Your task to perform on an android device: toggle airplane mode Image 0: 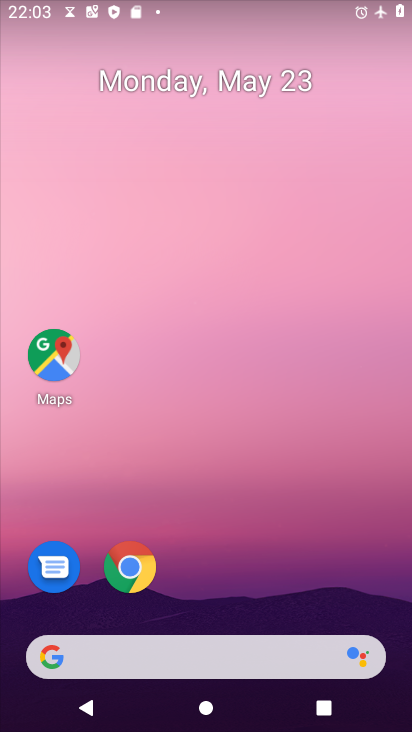
Step 0: drag from (233, 564) to (271, 214)
Your task to perform on an android device: toggle airplane mode Image 1: 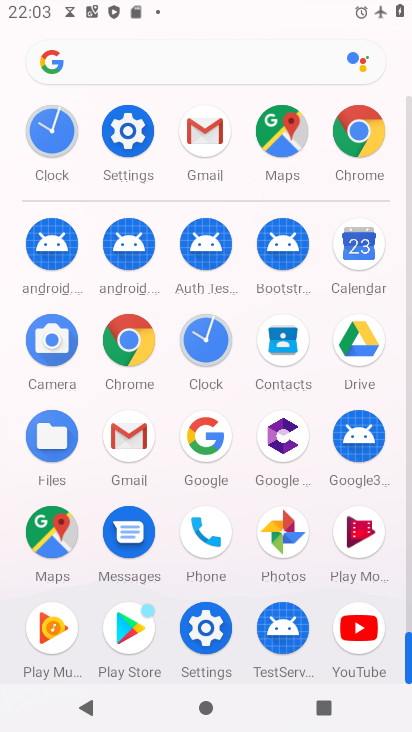
Step 1: click (136, 127)
Your task to perform on an android device: toggle airplane mode Image 2: 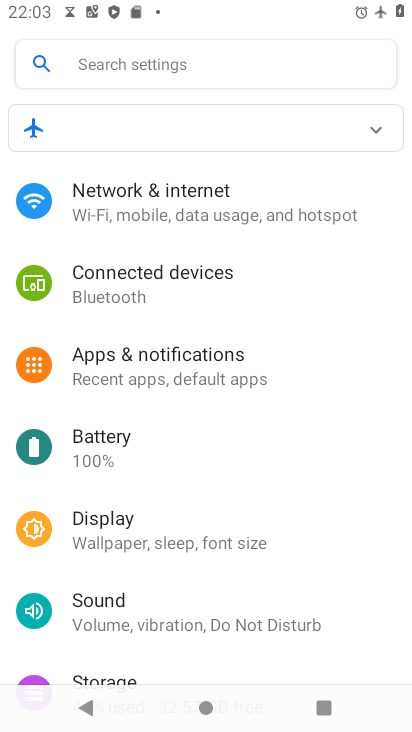
Step 2: click (248, 219)
Your task to perform on an android device: toggle airplane mode Image 3: 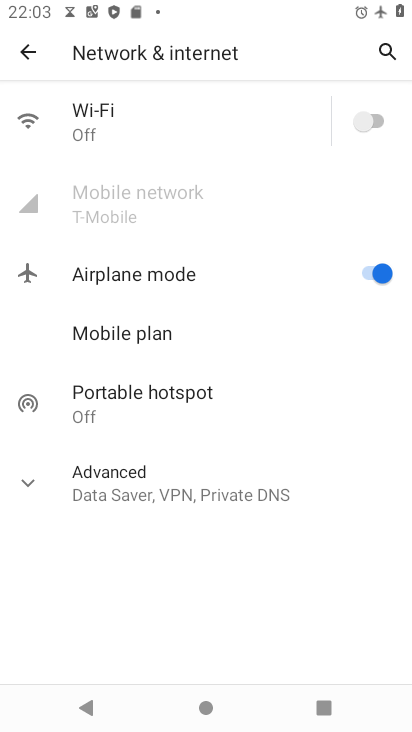
Step 3: click (376, 269)
Your task to perform on an android device: toggle airplane mode Image 4: 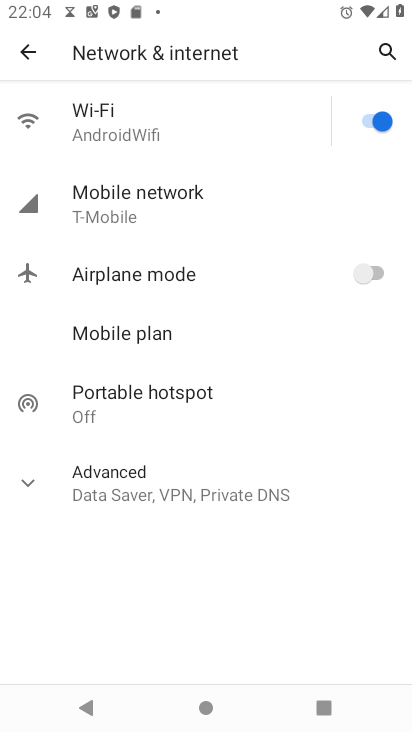
Step 4: task complete